Your task to perform on an android device: Clear the shopping cart on ebay.com. Image 0: 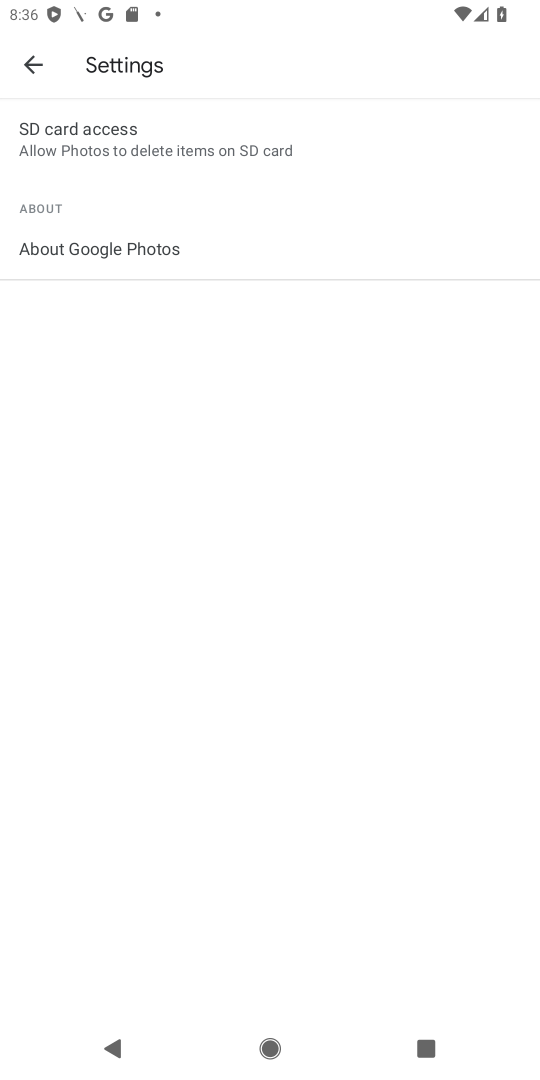
Step 0: press home button
Your task to perform on an android device: Clear the shopping cart on ebay.com. Image 1: 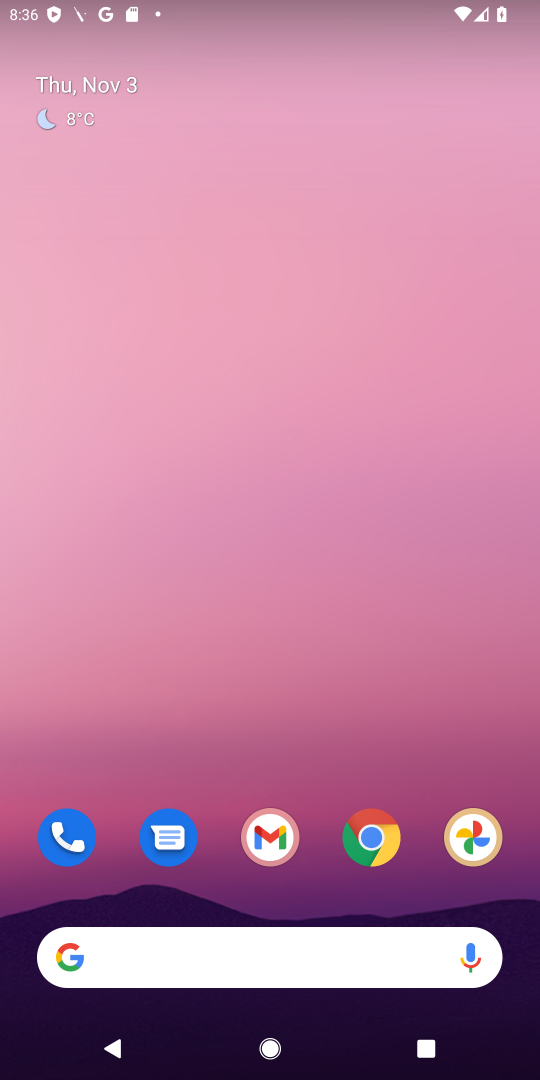
Step 1: click (383, 846)
Your task to perform on an android device: Clear the shopping cart on ebay.com. Image 2: 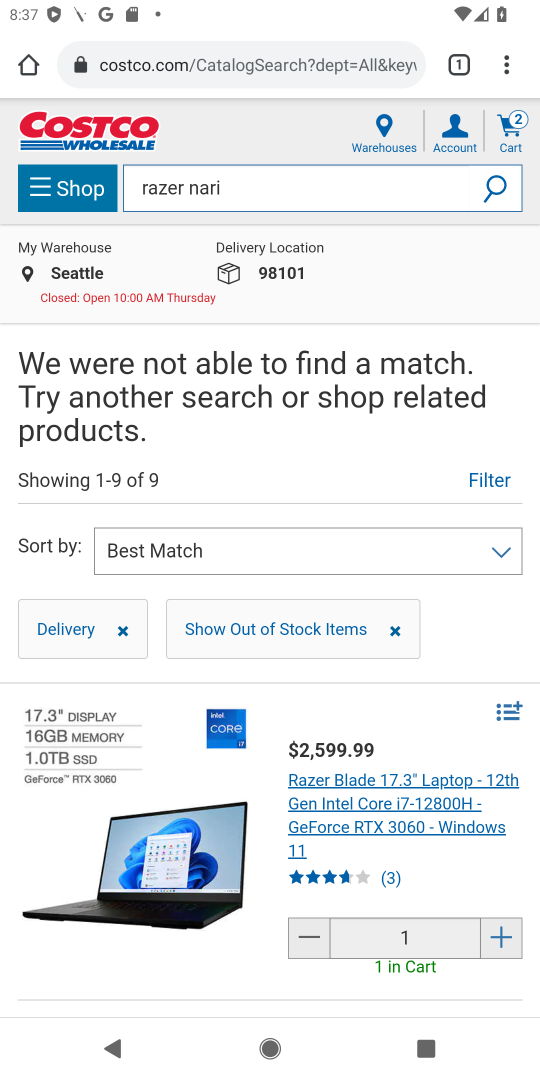
Step 2: click (290, 56)
Your task to perform on an android device: Clear the shopping cart on ebay.com. Image 3: 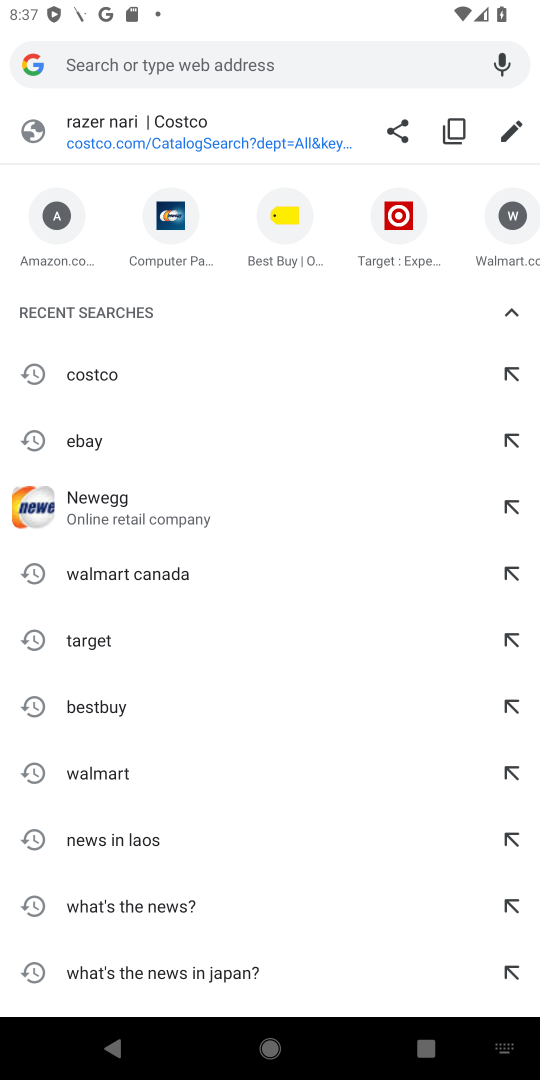
Step 3: click (81, 442)
Your task to perform on an android device: Clear the shopping cart on ebay.com. Image 4: 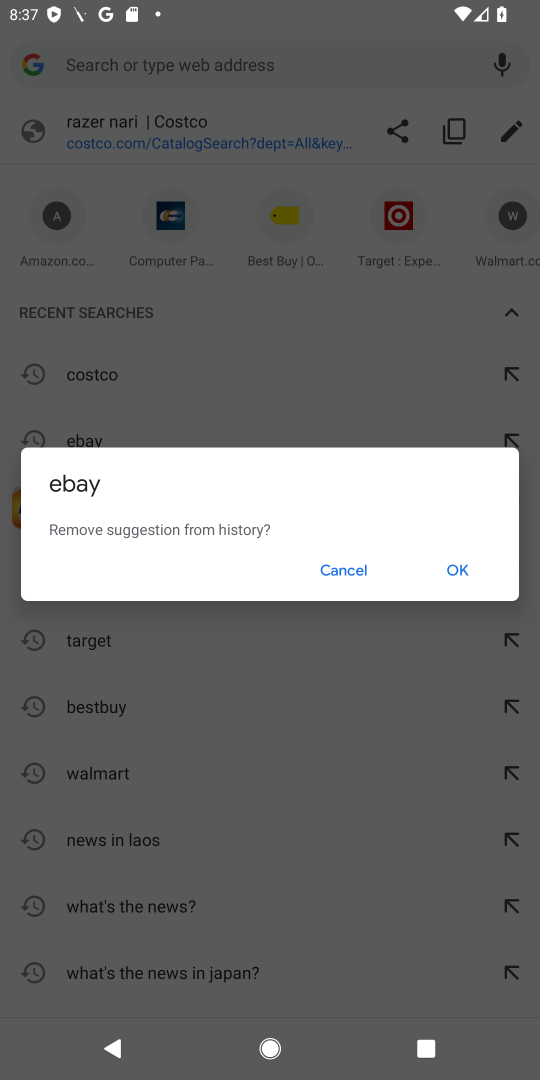
Step 4: click (335, 570)
Your task to perform on an android device: Clear the shopping cart on ebay.com. Image 5: 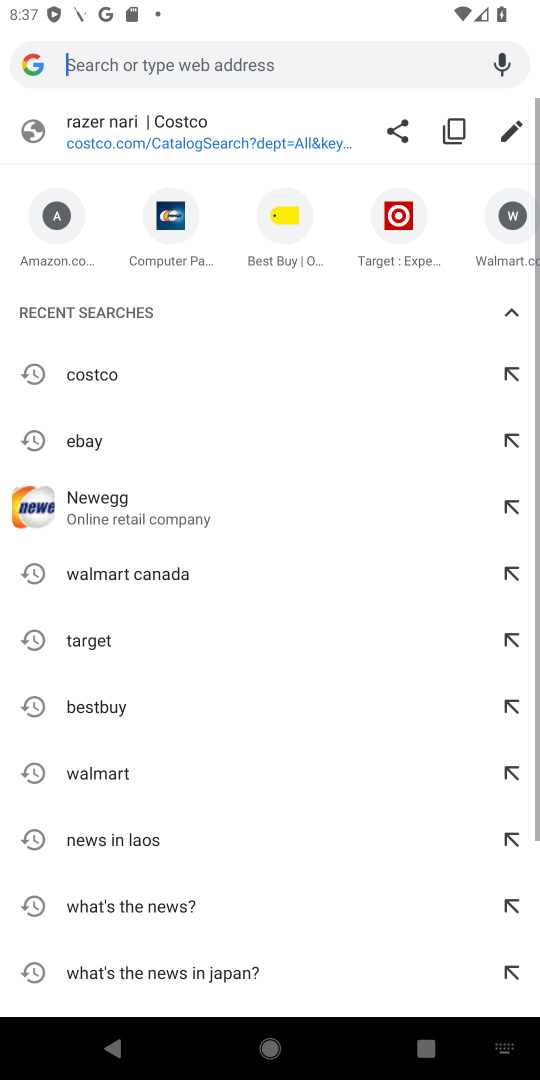
Step 5: click (88, 441)
Your task to perform on an android device: Clear the shopping cart on ebay.com. Image 6: 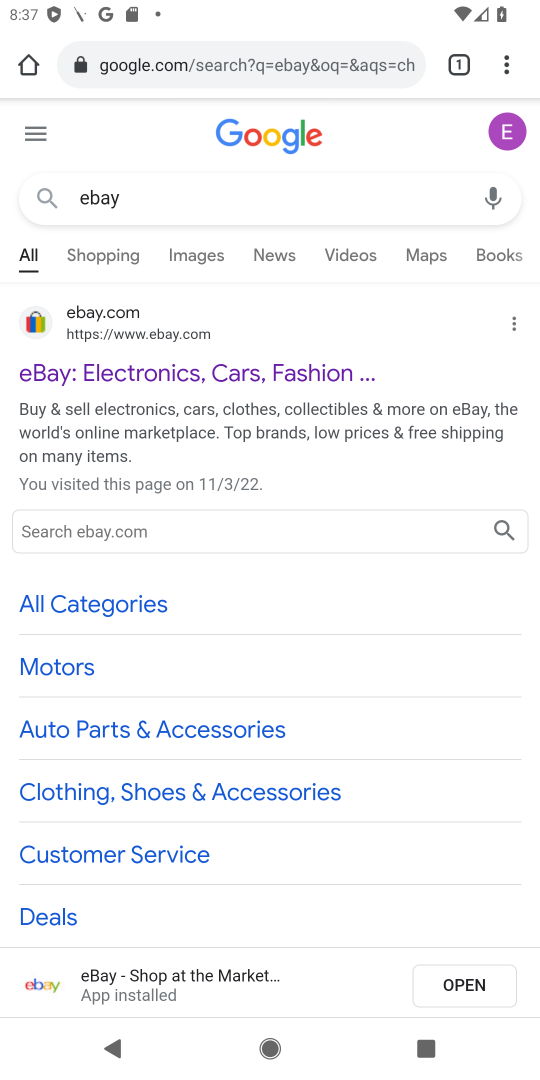
Step 6: click (143, 365)
Your task to perform on an android device: Clear the shopping cart on ebay.com. Image 7: 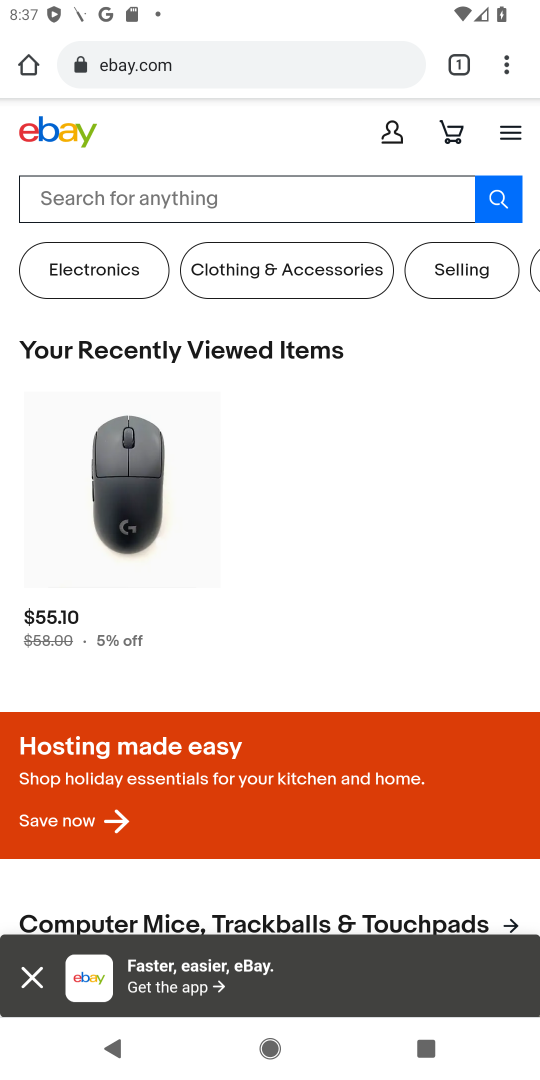
Step 7: drag from (262, 663) to (390, 287)
Your task to perform on an android device: Clear the shopping cart on ebay.com. Image 8: 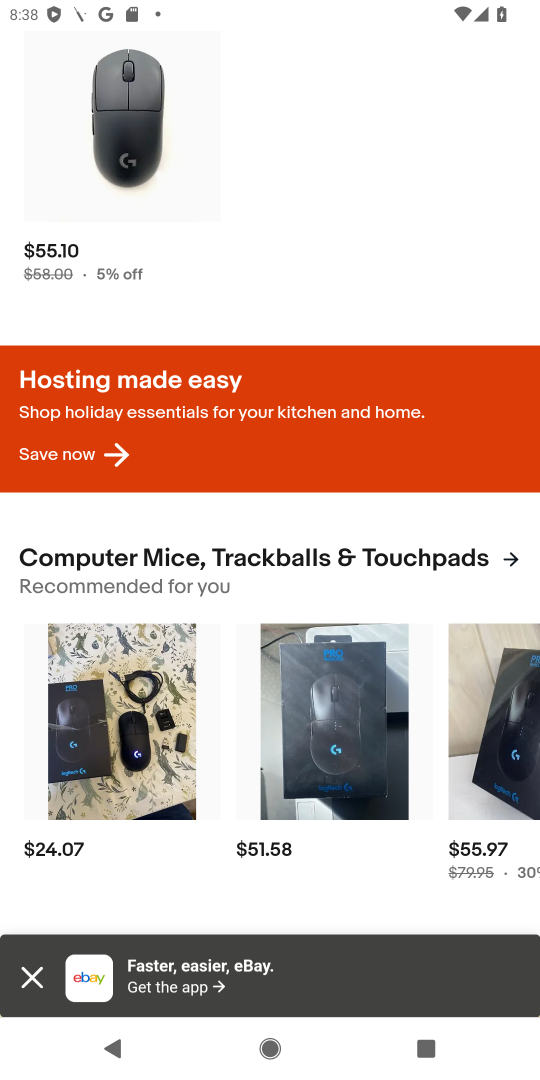
Step 8: drag from (174, 657) to (255, 880)
Your task to perform on an android device: Clear the shopping cart on ebay.com. Image 9: 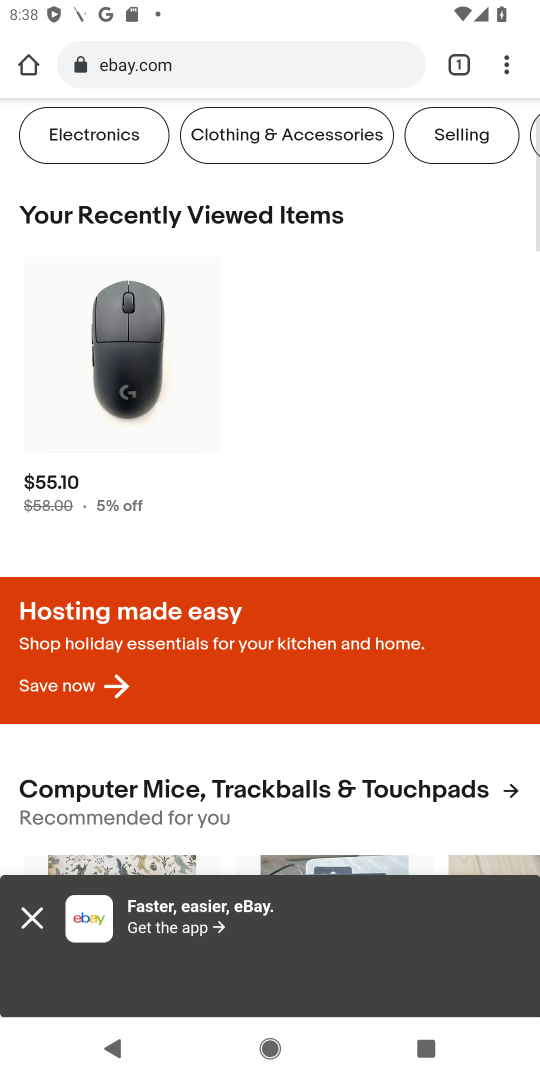
Step 9: drag from (326, 421) to (296, 714)
Your task to perform on an android device: Clear the shopping cart on ebay.com. Image 10: 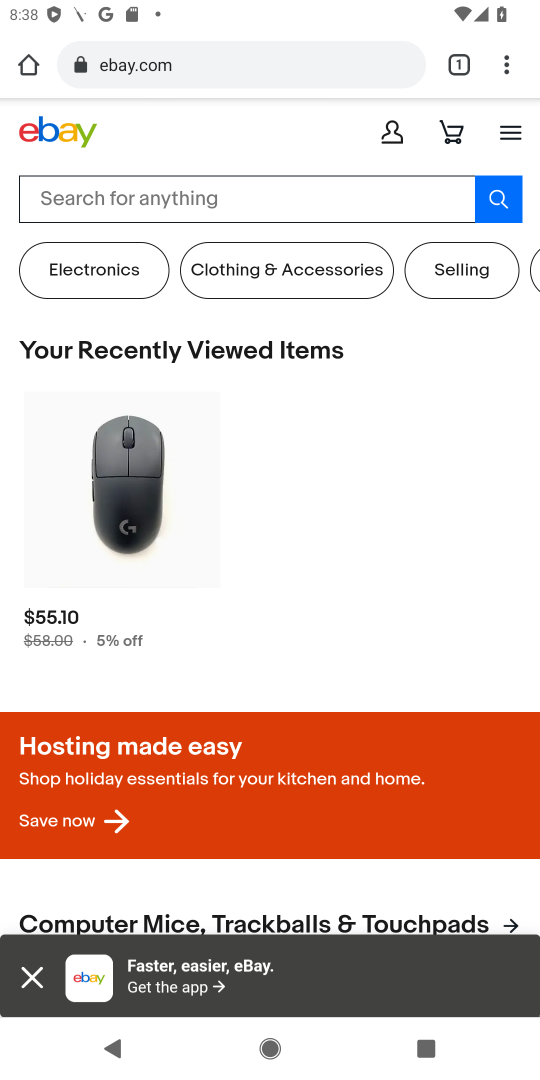
Step 10: click (456, 129)
Your task to perform on an android device: Clear the shopping cart on ebay.com. Image 11: 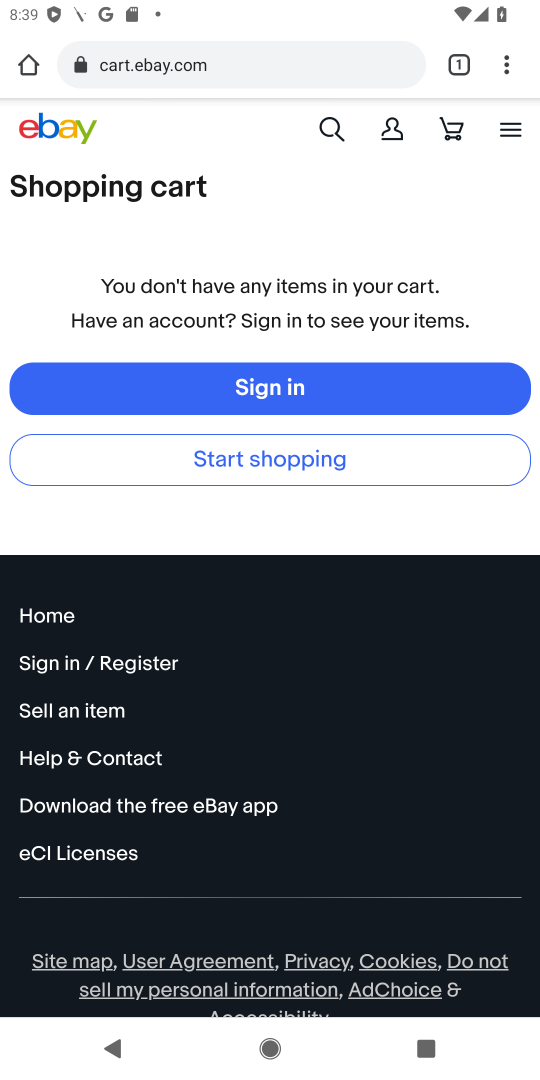
Step 11: task complete